Your task to perform on an android device: toggle notifications settings in the gmail app Image 0: 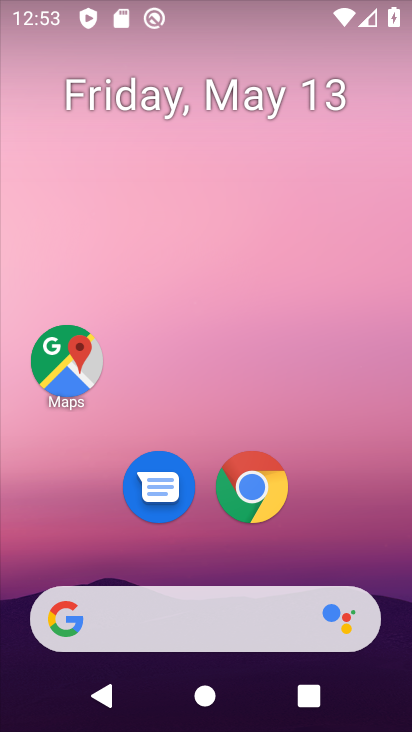
Step 0: drag from (357, 532) to (373, 105)
Your task to perform on an android device: toggle notifications settings in the gmail app Image 1: 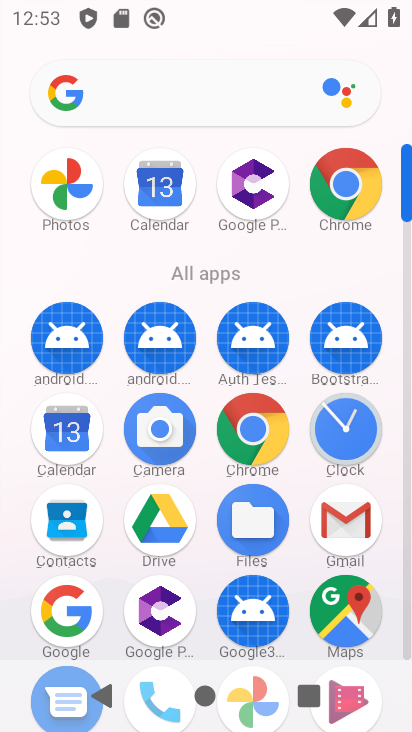
Step 1: click (335, 520)
Your task to perform on an android device: toggle notifications settings in the gmail app Image 2: 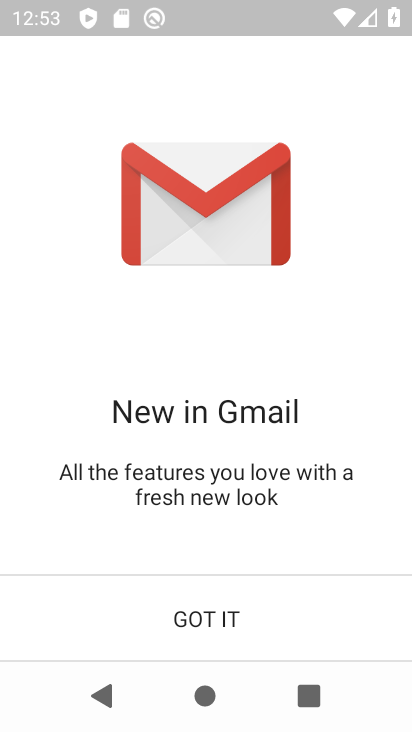
Step 2: click (178, 621)
Your task to perform on an android device: toggle notifications settings in the gmail app Image 3: 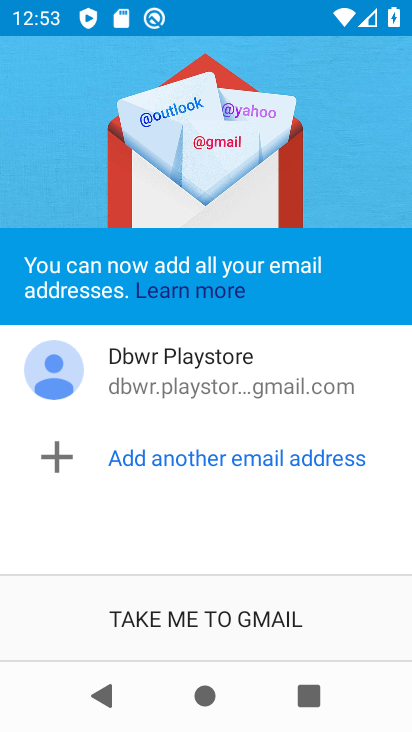
Step 3: click (179, 616)
Your task to perform on an android device: toggle notifications settings in the gmail app Image 4: 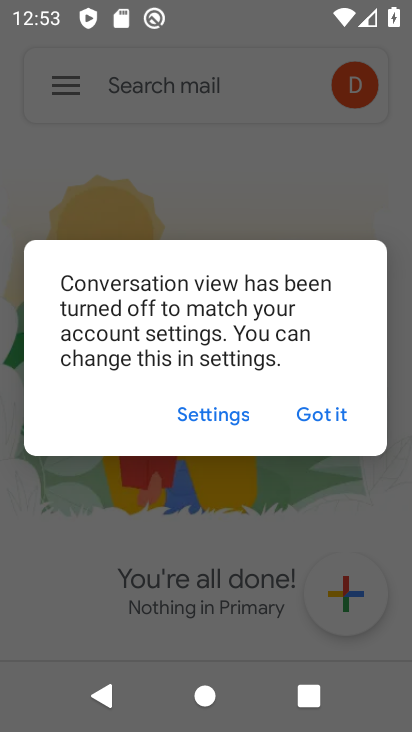
Step 4: click (290, 415)
Your task to perform on an android device: toggle notifications settings in the gmail app Image 5: 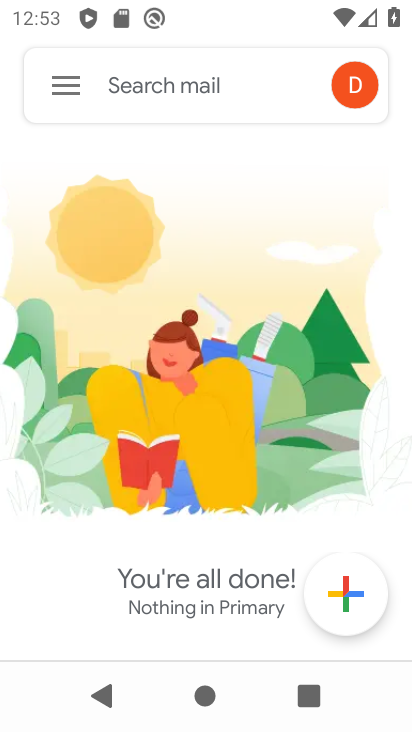
Step 5: click (54, 87)
Your task to perform on an android device: toggle notifications settings in the gmail app Image 6: 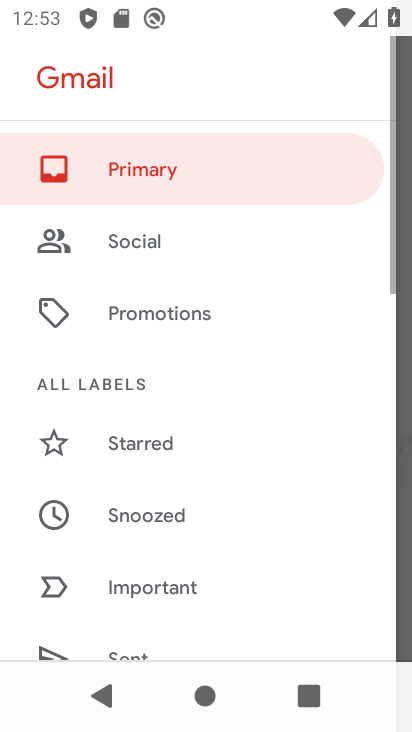
Step 6: drag from (254, 562) to (265, 272)
Your task to perform on an android device: toggle notifications settings in the gmail app Image 7: 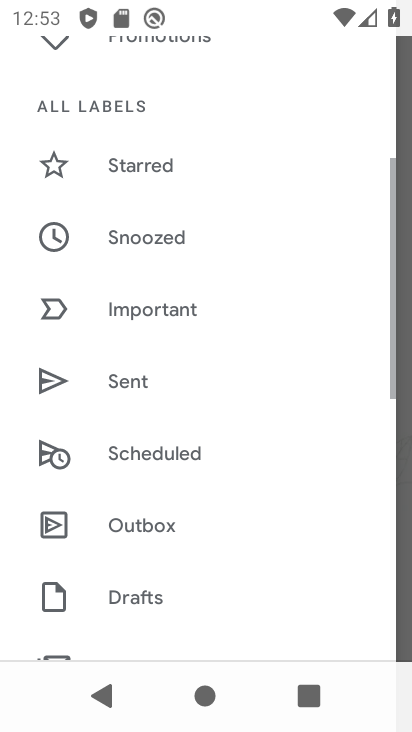
Step 7: drag from (276, 544) to (277, 225)
Your task to perform on an android device: toggle notifications settings in the gmail app Image 8: 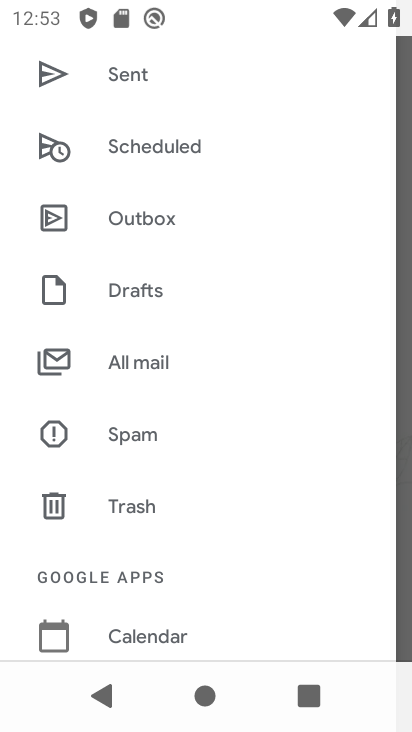
Step 8: drag from (247, 590) to (234, 277)
Your task to perform on an android device: toggle notifications settings in the gmail app Image 9: 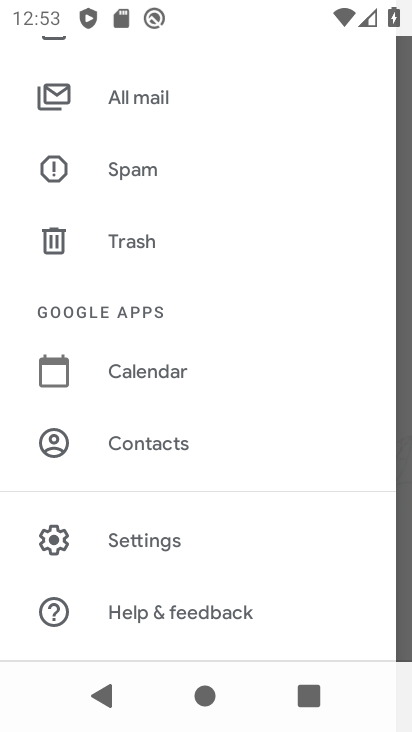
Step 9: click (178, 545)
Your task to perform on an android device: toggle notifications settings in the gmail app Image 10: 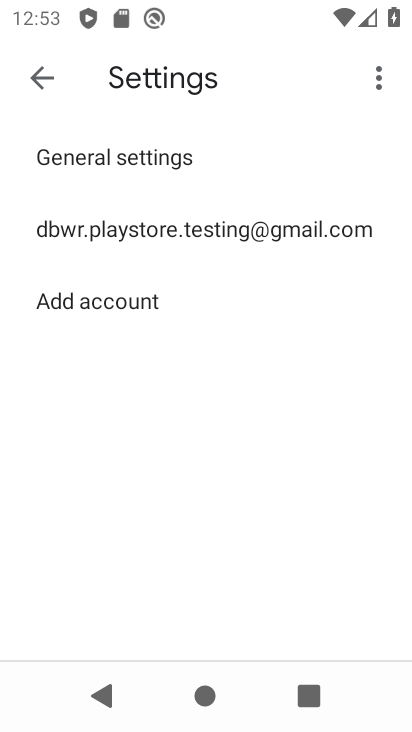
Step 10: click (212, 227)
Your task to perform on an android device: toggle notifications settings in the gmail app Image 11: 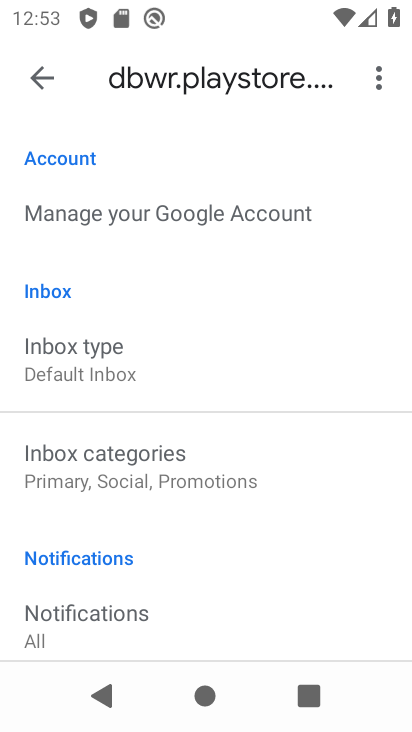
Step 11: drag from (223, 564) to (245, 288)
Your task to perform on an android device: toggle notifications settings in the gmail app Image 12: 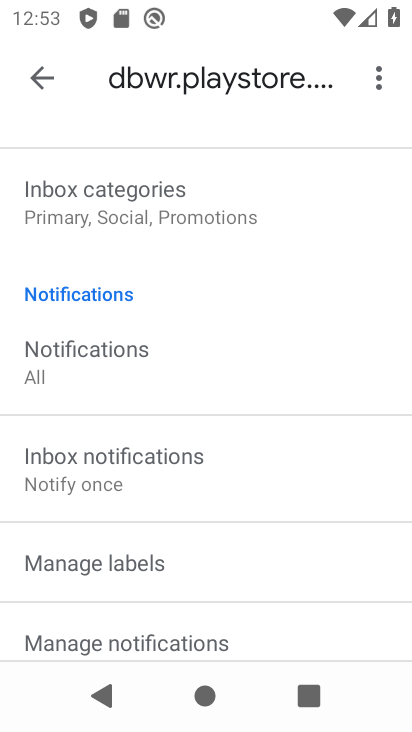
Step 12: click (152, 354)
Your task to perform on an android device: toggle notifications settings in the gmail app Image 13: 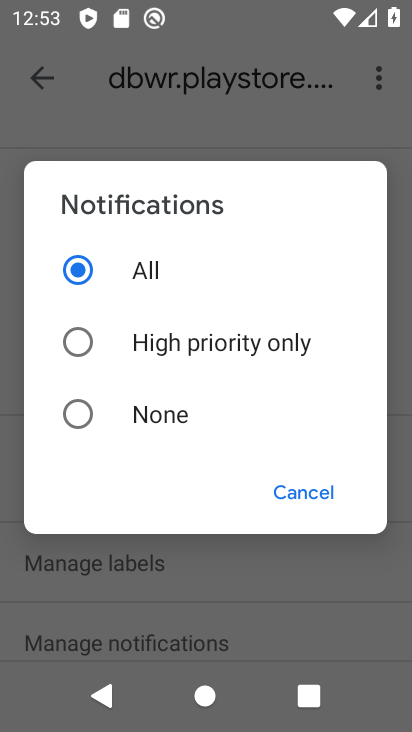
Step 13: click (65, 424)
Your task to perform on an android device: toggle notifications settings in the gmail app Image 14: 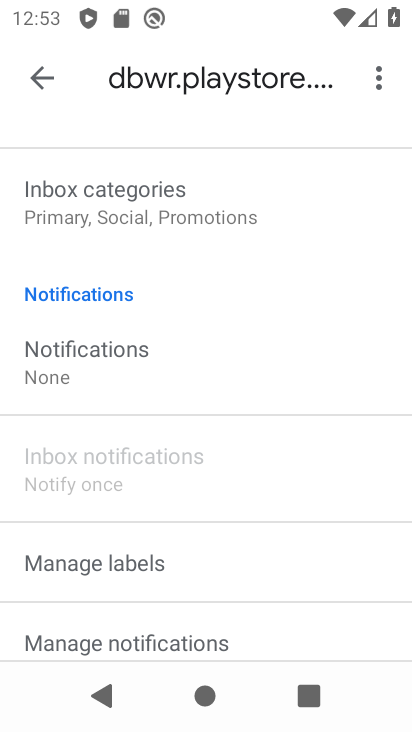
Step 14: task complete